Your task to perform on an android device: turn on wifi Image 0: 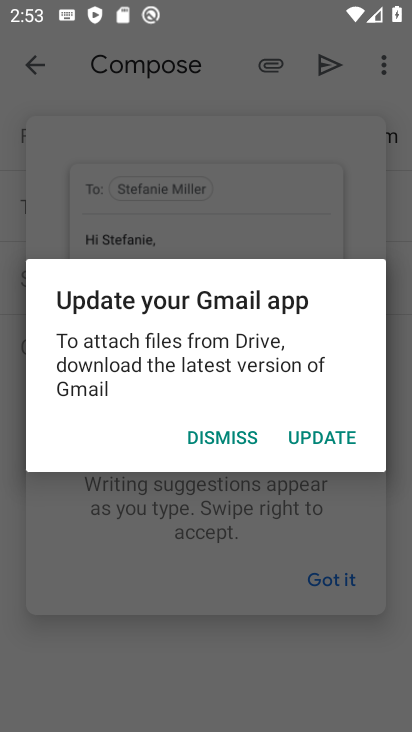
Step 0: press home button
Your task to perform on an android device: turn on wifi Image 1: 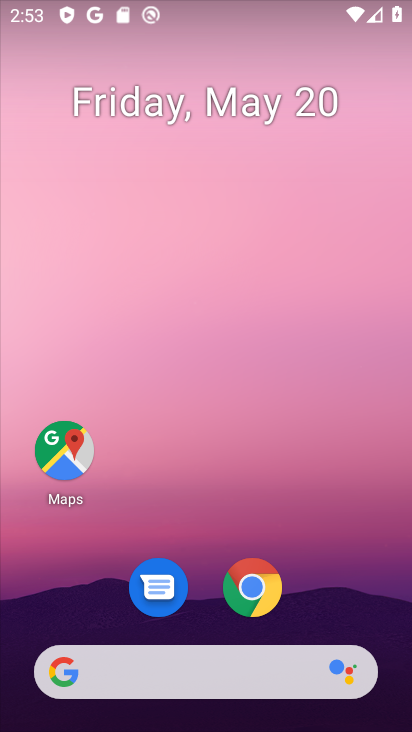
Step 1: drag from (187, 695) to (283, 149)
Your task to perform on an android device: turn on wifi Image 2: 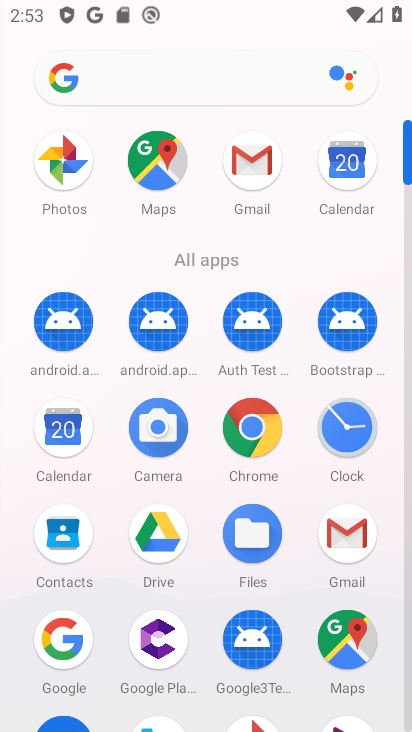
Step 2: drag from (205, 644) to (358, 231)
Your task to perform on an android device: turn on wifi Image 3: 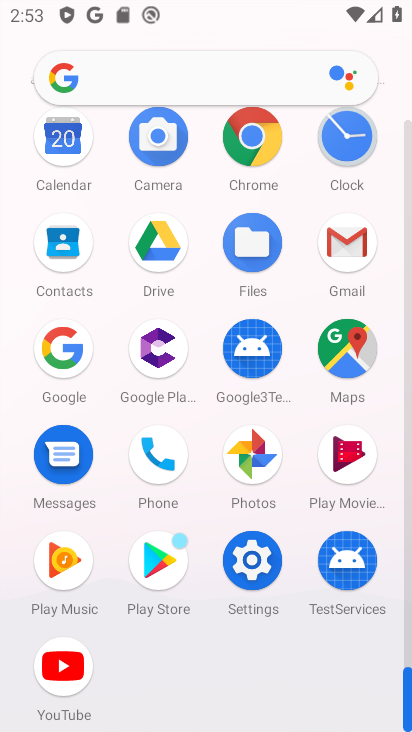
Step 3: click (265, 567)
Your task to perform on an android device: turn on wifi Image 4: 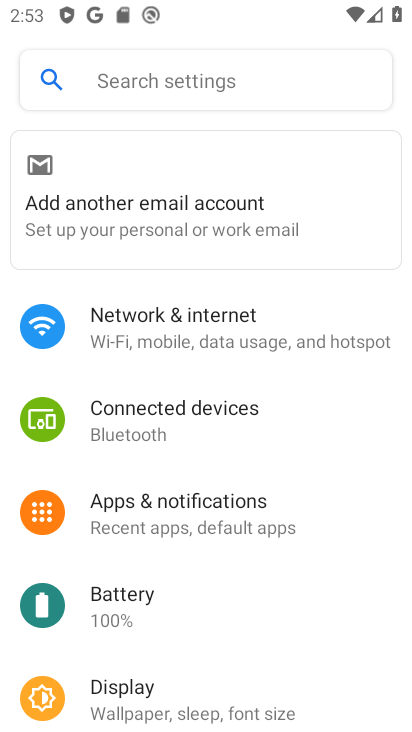
Step 4: click (142, 323)
Your task to perform on an android device: turn on wifi Image 5: 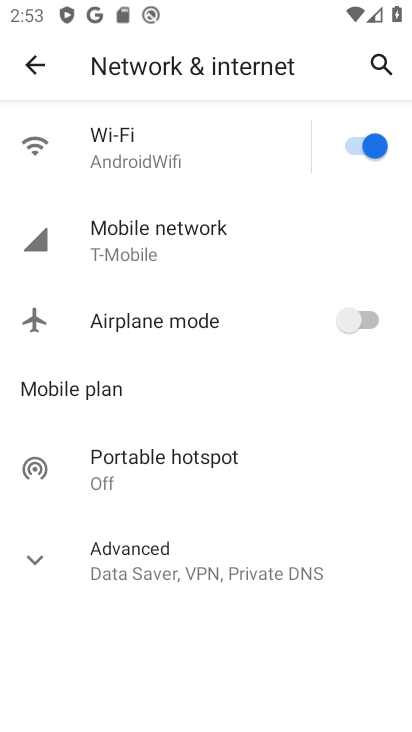
Step 5: task complete